Your task to perform on an android device: open app "Roku - Official Remote Control" (install if not already installed), go to login, and select forgot password Image 0: 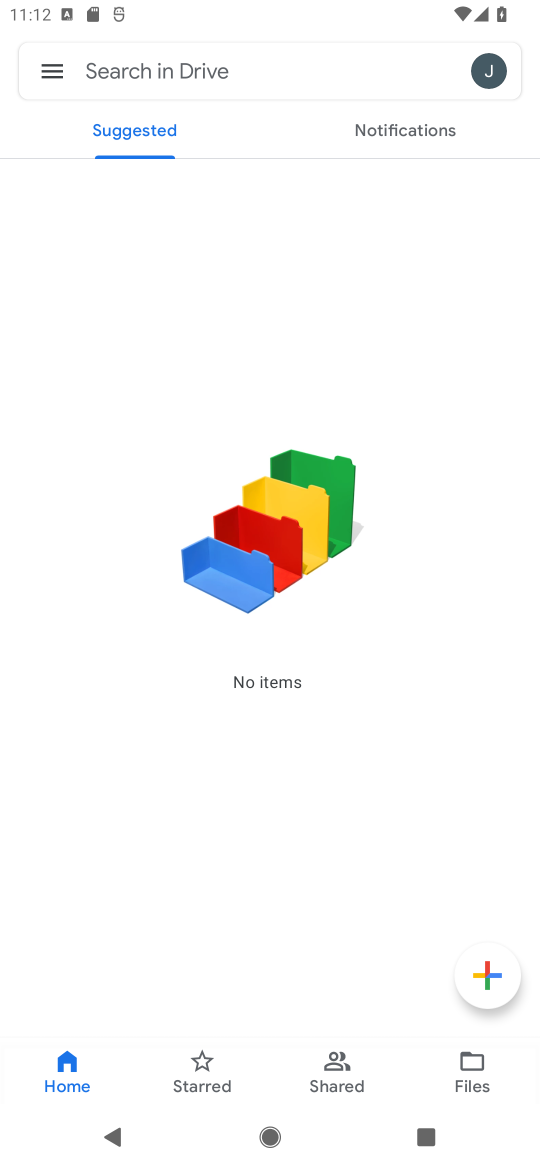
Step 0: press home button
Your task to perform on an android device: open app "Roku - Official Remote Control" (install if not already installed), go to login, and select forgot password Image 1: 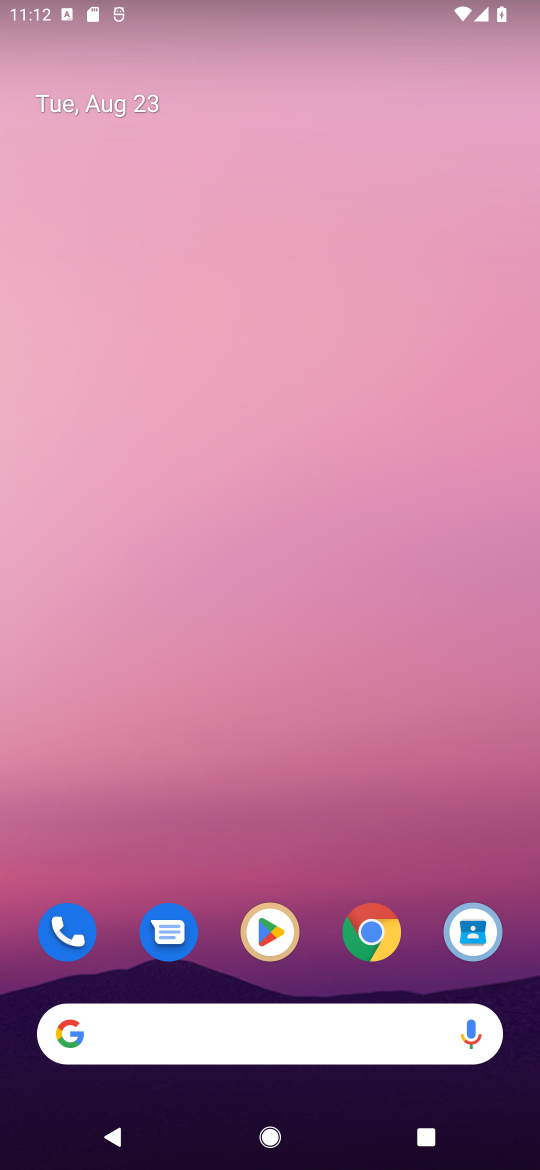
Step 1: click (253, 938)
Your task to perform on an android device: open app "Roku - Official Remote Control" (install if not already installed), go to login, and select forgot password Image 2: 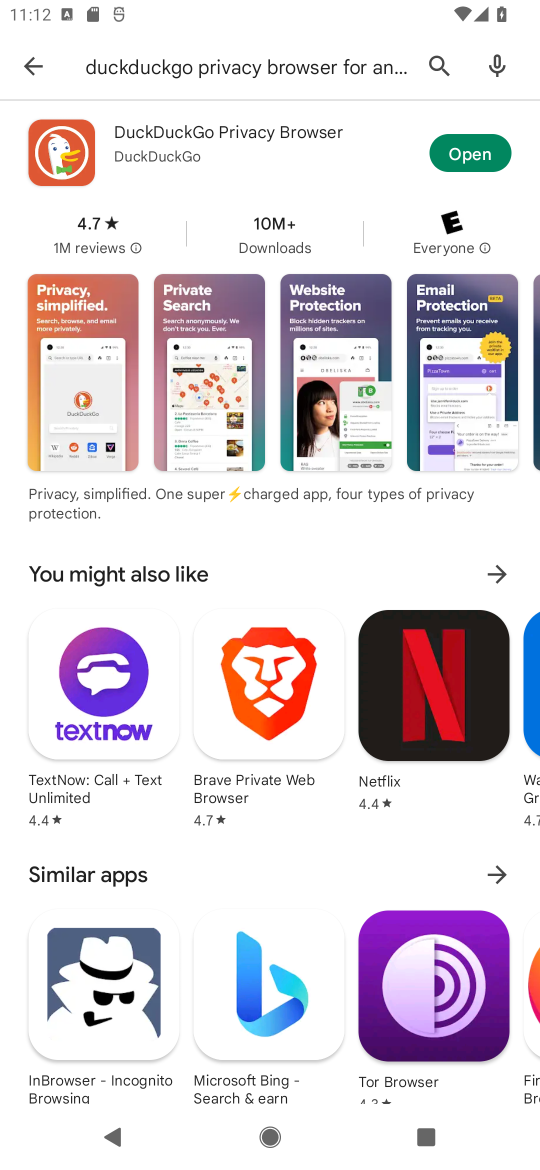
Step 2: click (437, 67)
Your task to perform on an android device: open app "Roku - Official Remote Control" (install if not already installed), go to login, and select forgot password Image 3: 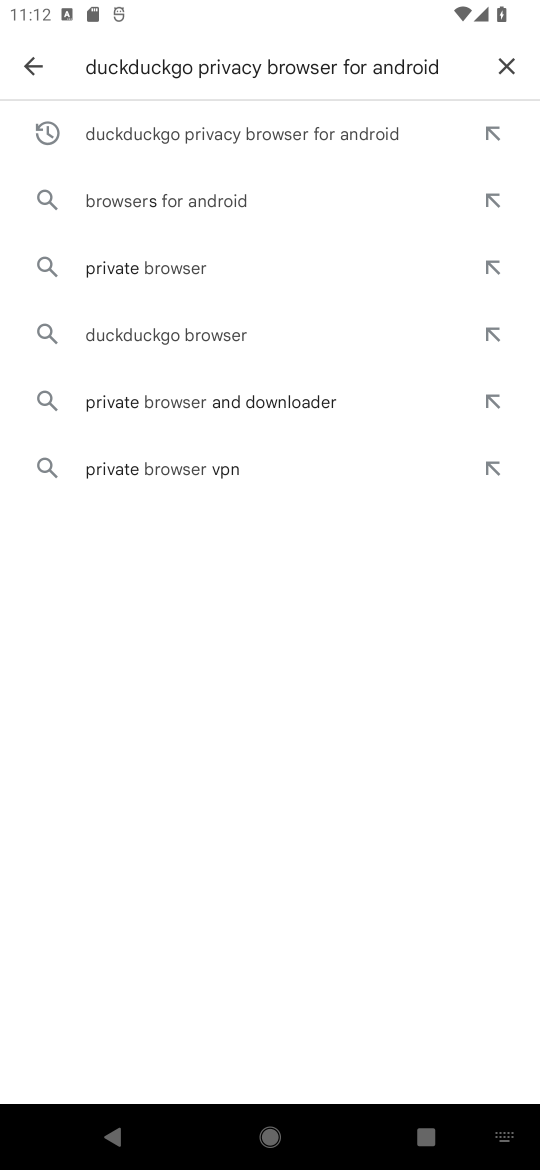
Step 3: click (502, 61)
Your task to perform on an android device: open app "Roku - Official Remote Control" (install if not already installed), go to login, and select forgot password Image 4: 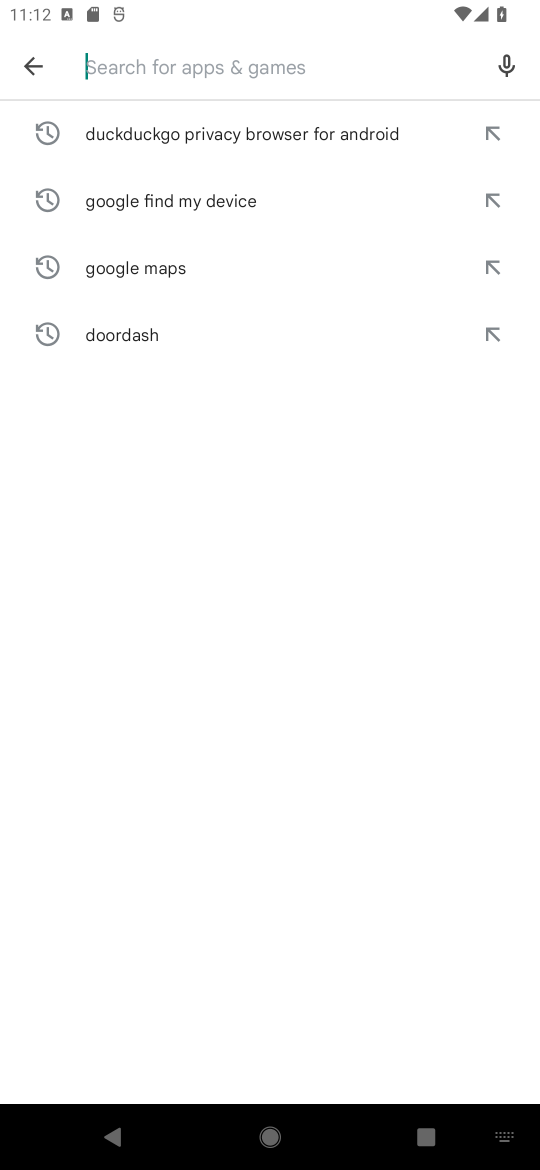
Step 4: click (163, 58)
Your task to perform on an android device: open app "Roku - Official Remote Control" (install if not already installed), go to login, and select forgot password Image 5: 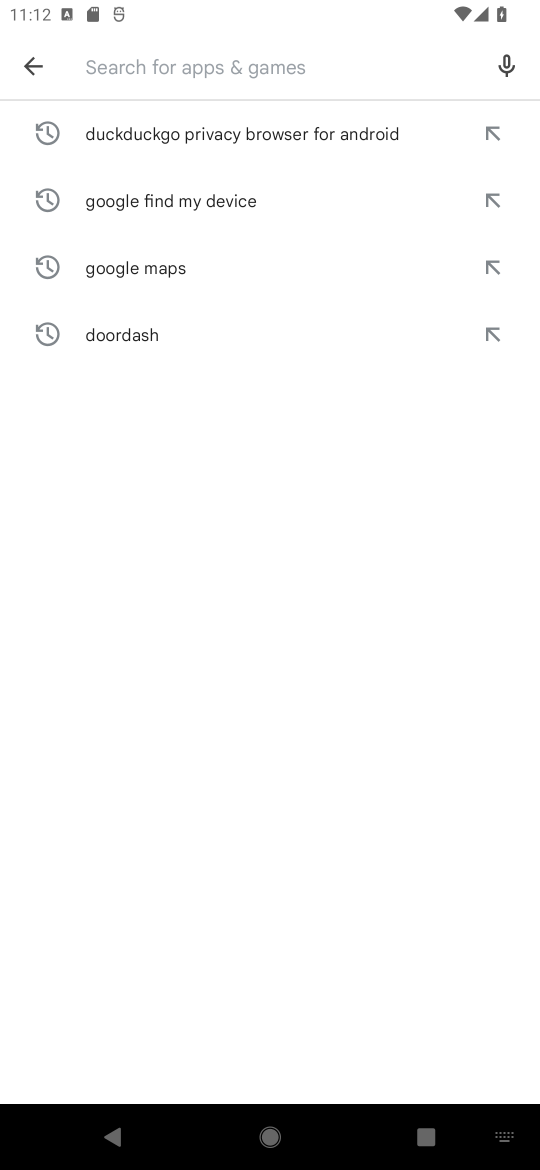
Step 5: type "Roku"
Your task to perform on an android device: open app "Roku - Official Remote Control" (install if not already installed), go to login, and select forgot password Image 6: 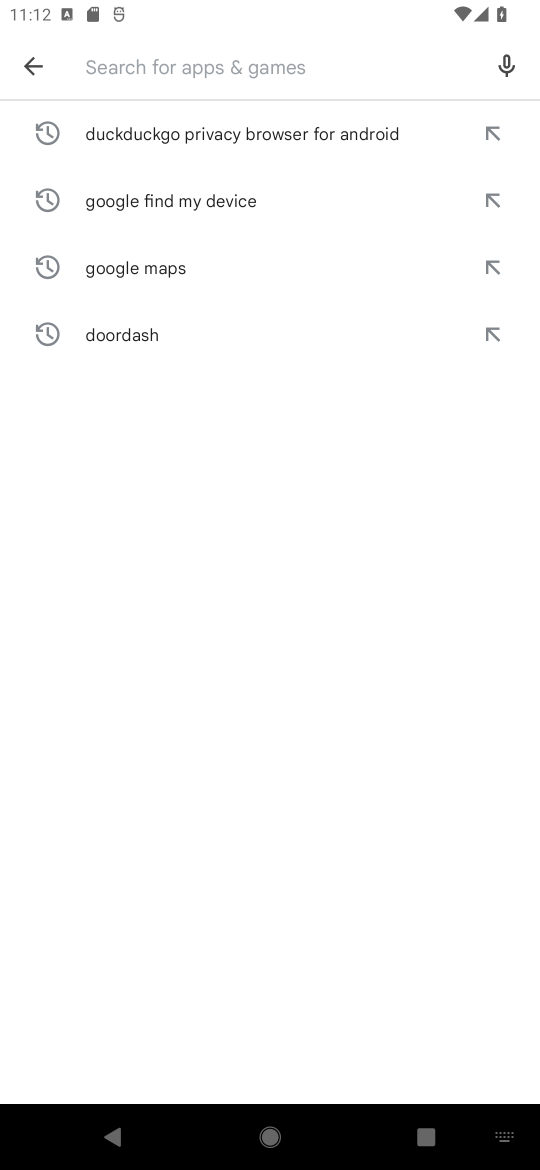
Step 6: click (290, 730)
Your task to perform on an android device: open app "Roku - Official Remote Control" (install if not already installed), go to login, and select forgot password Image 7: 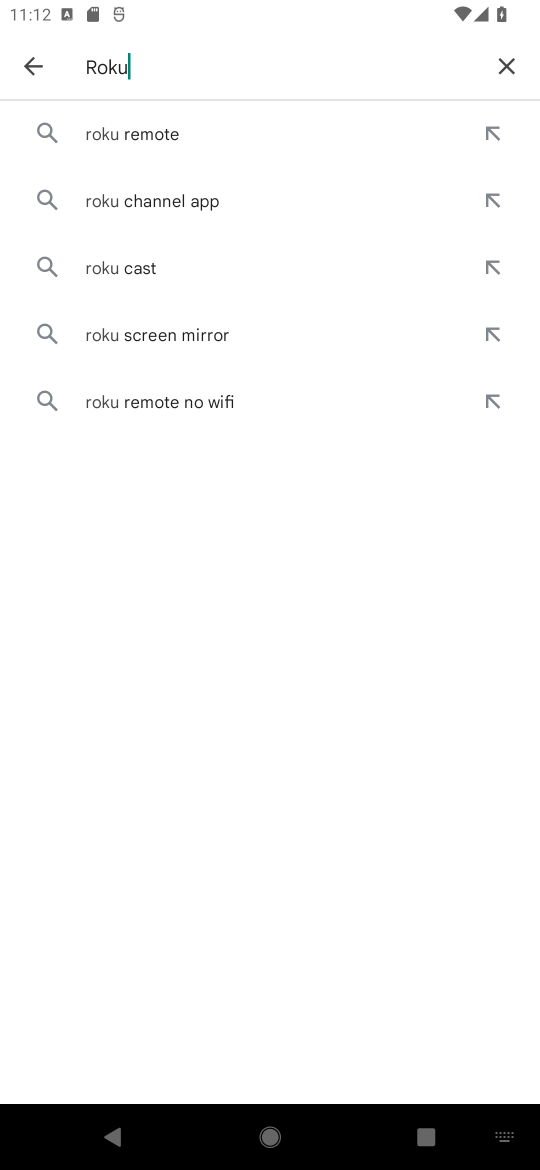
Step 7: click (150, 141)
Your task to perform on an android device: open app "Roku - Official Remote Control" (install if not already installed), go to login, and select forgot password Image 8: 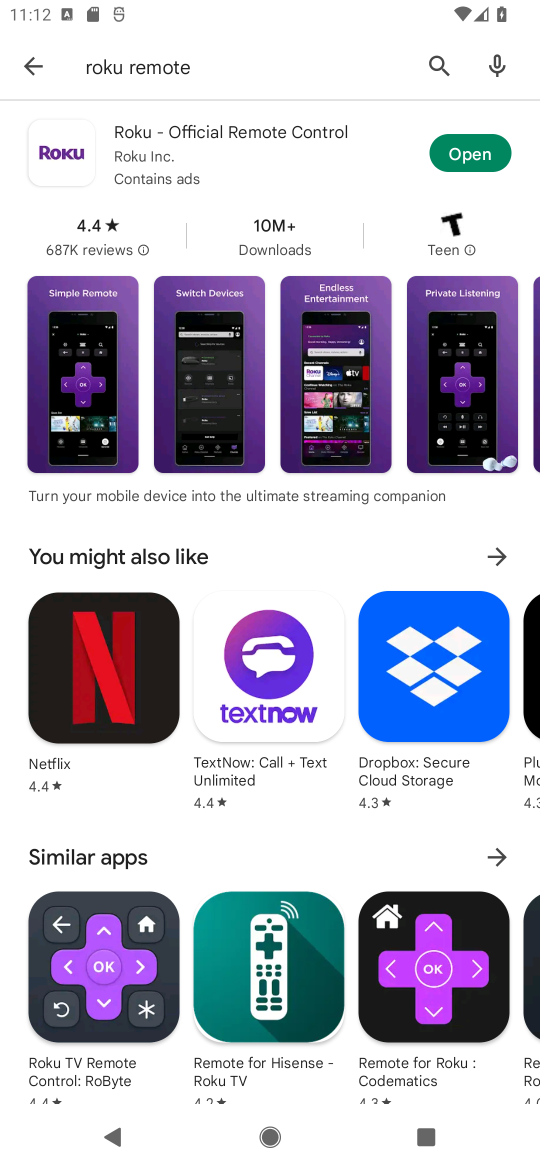
Step 8: click (468, 146)
Your task to perform on an android device: open app "Roku - Official Remote Control" (install if not already installed), go to login, and select forgot password Image 9: 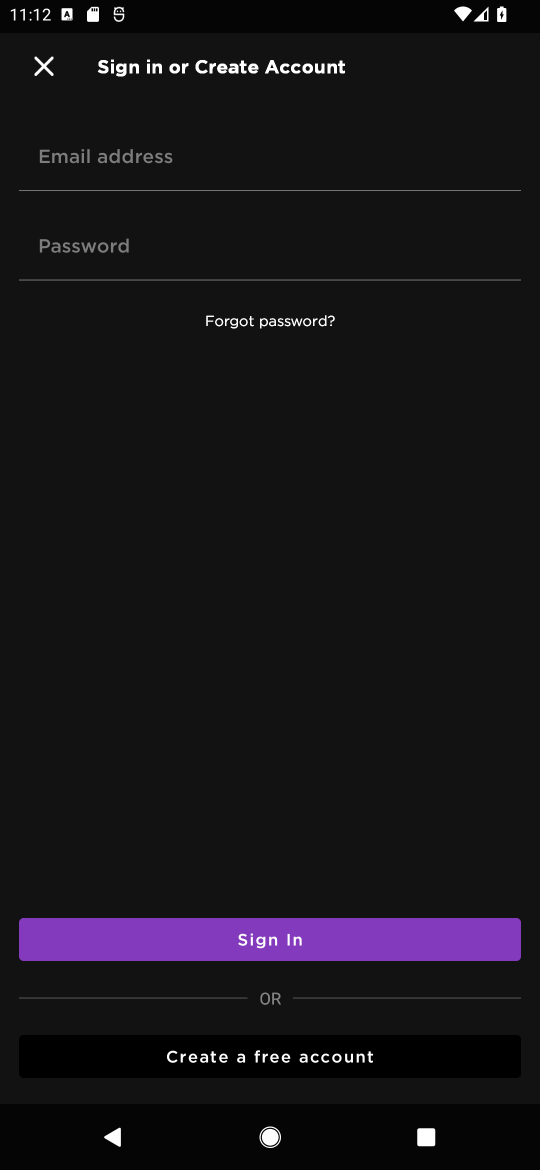
Step 9: click (240, 307)
Your task to perform on an android device: open app "Roku - Official Remote Control" (install if not already installed), go to login, and select forgot password Image 10: 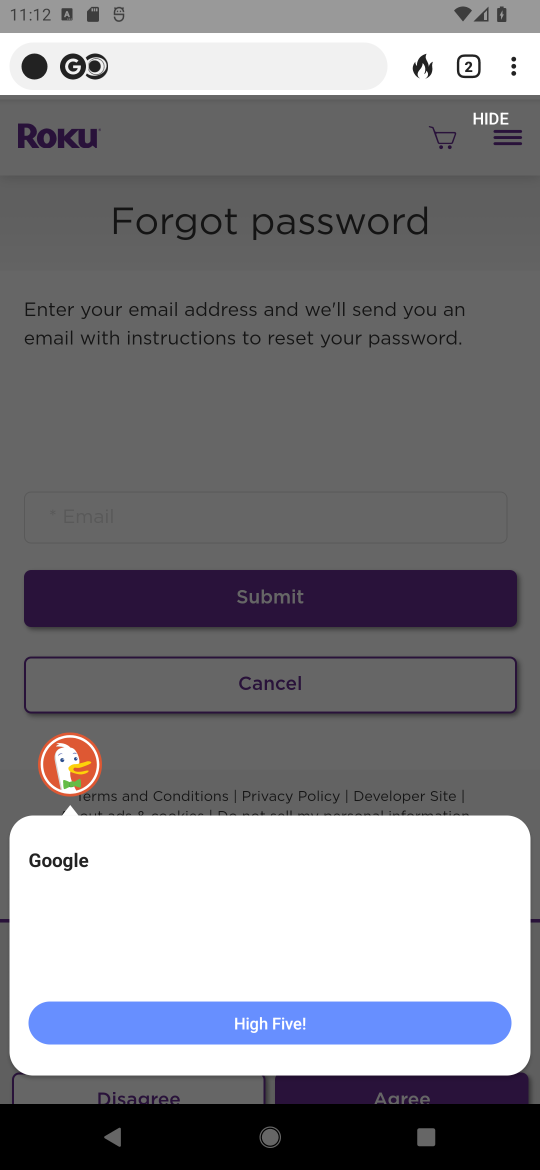
Step 10: task complete